Your task to perform on an android device: Open wifi settings Image 0: 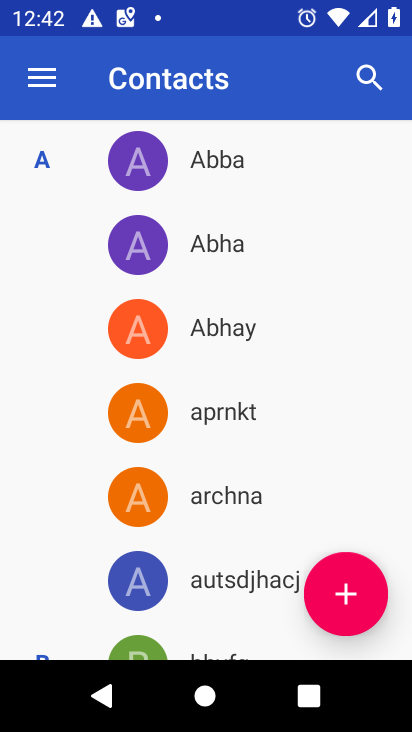
Step 0: press back button
Your task to perform on an android device: Open wifi settings Image 1: 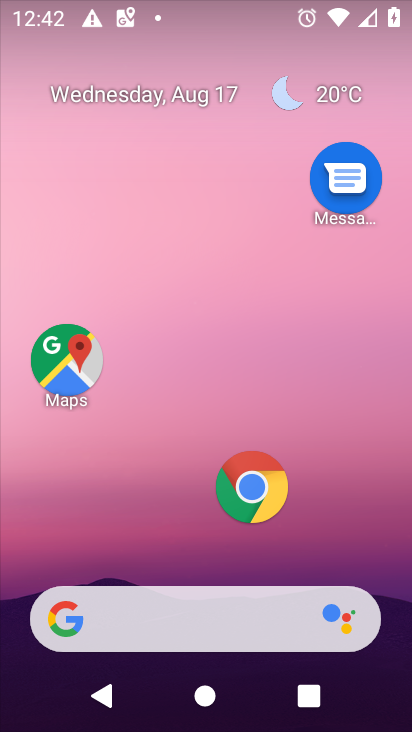
Step 1: drag from (115, 5) to (169, 459)
Your task to perform on an android device: Open wifi settings Image 2: 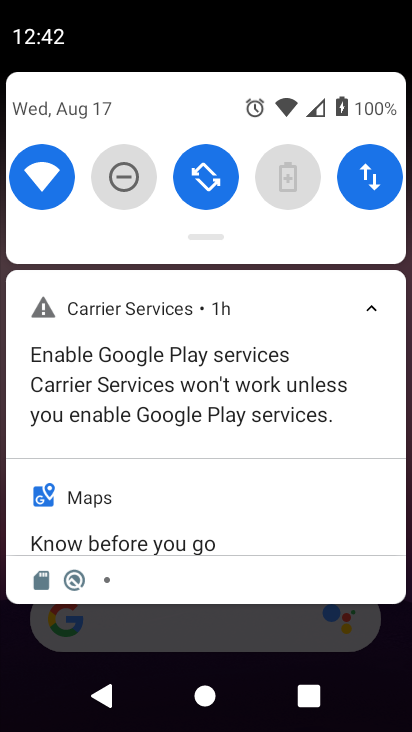
Step 2: click (43, 166)
Your task to perform on an android device: Open wifi settings Image 3: 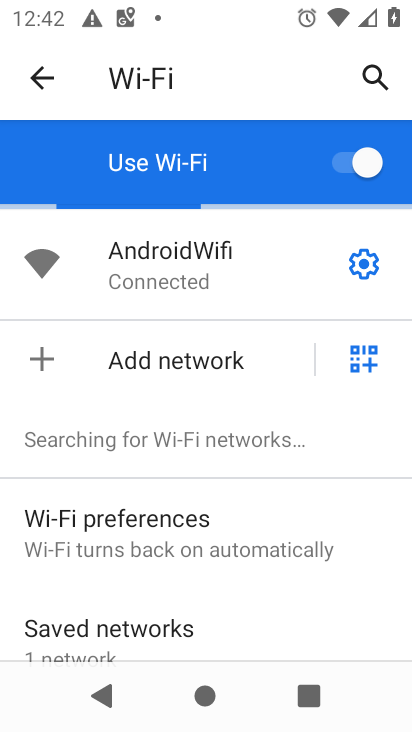
Step 3: task complete